Your task to perform on an android device: turn off priority inbox in the gmail app Image 0: 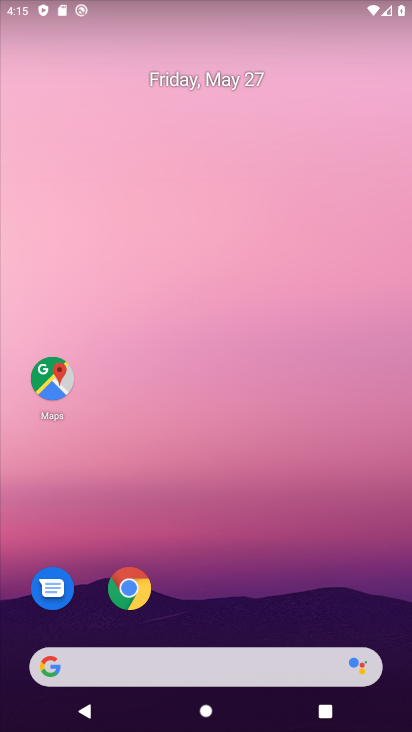
Step 0: drag from (234, 577) to (306, 15)
Your task to perform on an android device: turn off priority inbox in the gmail app Image 1: 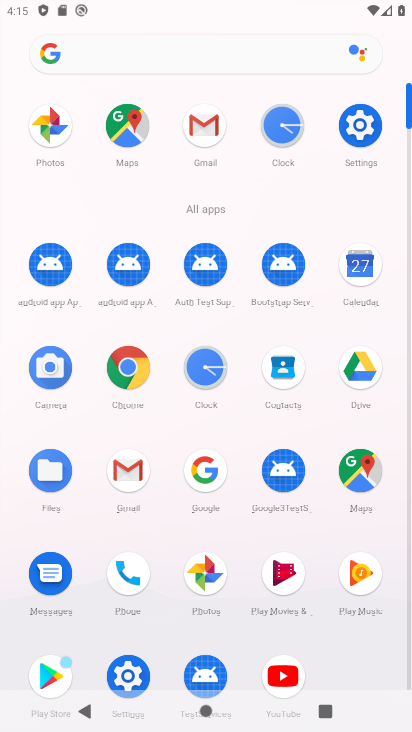
Step 1: click (206, 117)
Your task to perform on an android device: turn off priority inbox in the gmail app Image 2: 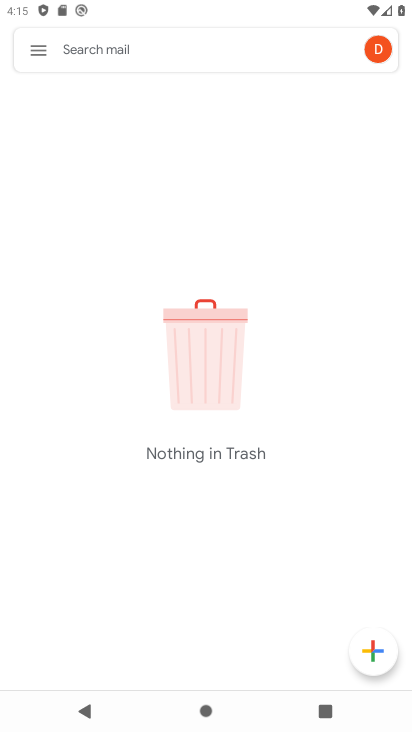
Step 2: click (36, 46)
Your task to perform on an android device: turn off priority inbox in the gmail app Image 3: 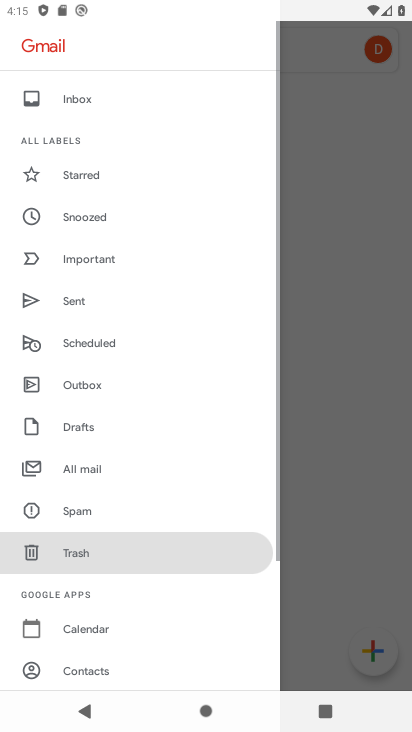
Step 3: drag from (86, 652) to (213, 79)
Your task to perform on an android device: turn off priority inbox in the gmail app Image 4: 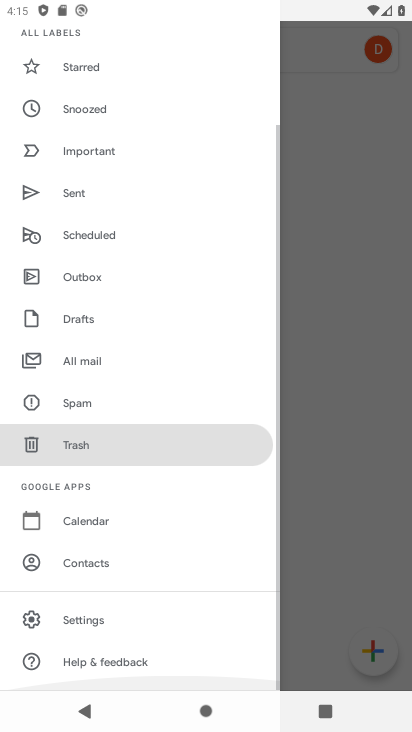
Step 4: click (93, 626)
Your task to perform on an android device: turn off priority inbox in the gmail app Image 5: 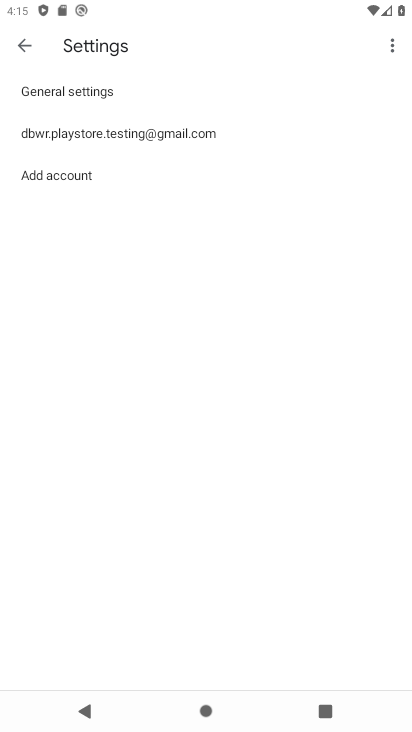
Step 5: click (59, 129)
Your task to perform on an android device: turn off priority inbox in the gmail app Image 6: 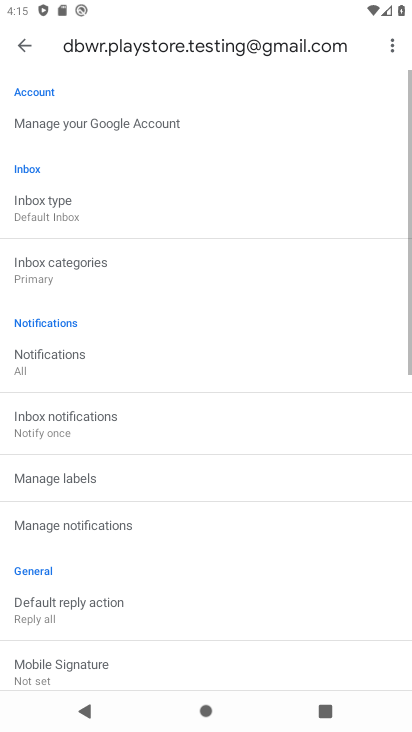
Step 6: click (53, 214)
Your task to perform on an android device: turn off priority inbox in the gmail app Image 7: 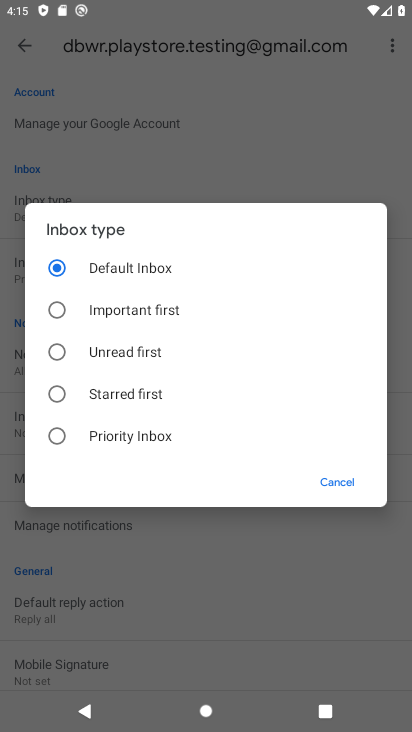
Step 7: click (55, 266)
Your task to perform on an android device: turn off priority inbox in the gmail app Image 8: 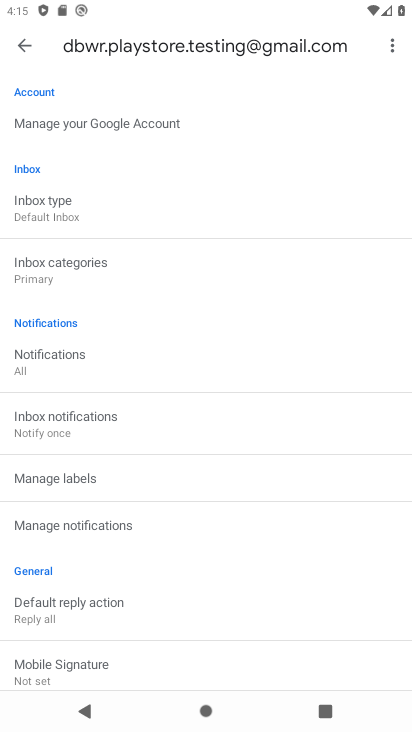
Step 8: task complete